Your task to perform on an android device: Search for Italian restaurants on Maps Image 0: 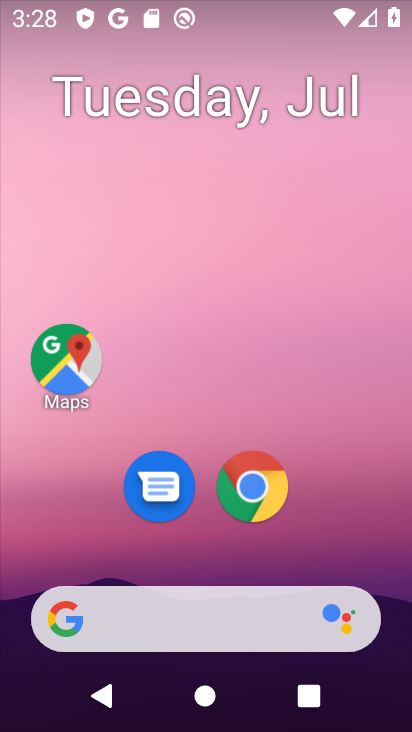
Step 0: click (68, 363)
Your task to perform on an android device: Search for Italian restaurants on Maps Image 1: 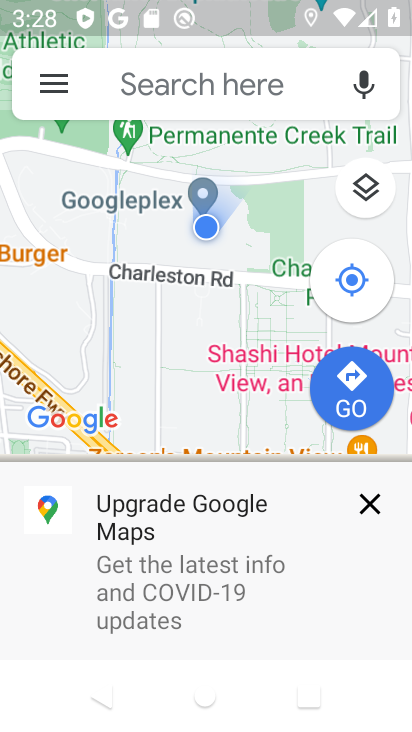
Step 1: click (212, 83)
Your task to perform on an android device: Search for Italian restaurants on Maps Image 2: 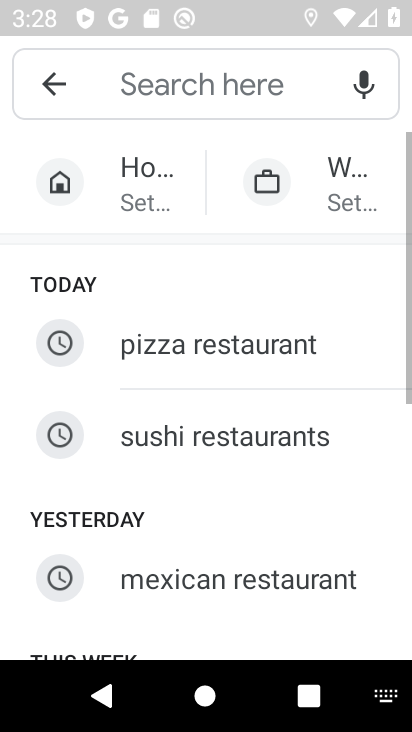
Step 2: drag from (169, 562) to (248, 148)
Your task to perform on an android device: Search for Italian restaurants on Maps Image 3: 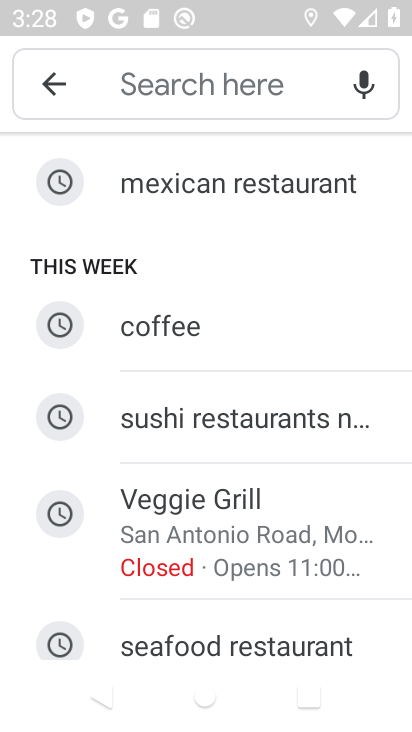
Step 3: drag from (175, 566) to (258, 115)
Your task to perform on an android device: Search for Italian restaurants on Maps Image 4: 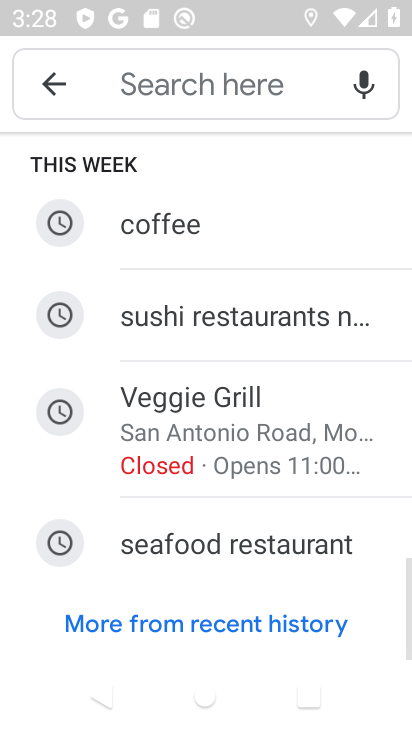
Step 4: drag from (239, 168) to (154, 712)
Your task to perform on an android device: Search for Italian restaurants on Maps Image 5: 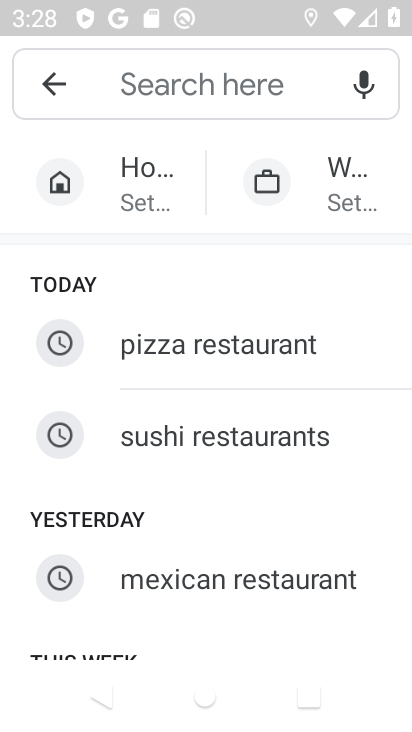
Step 5: click (176, 80)
Your task to perform on an android device: Search for Italian restaurants on Maps Image 6: 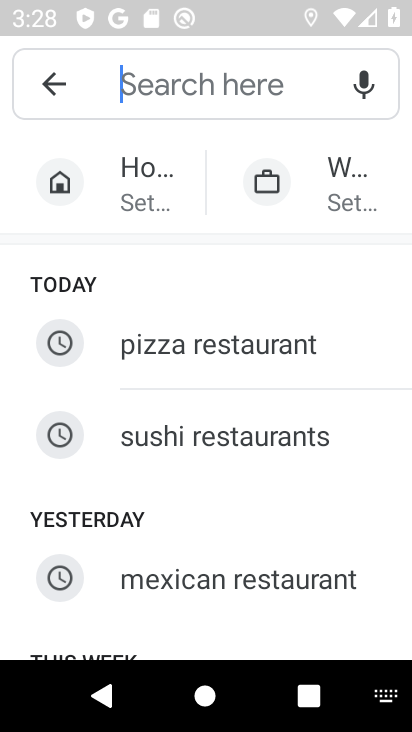
Step 6: type "italian restaurants"
Your task to perform on an android device: Search for Italian restaurants on Maps Image 7: 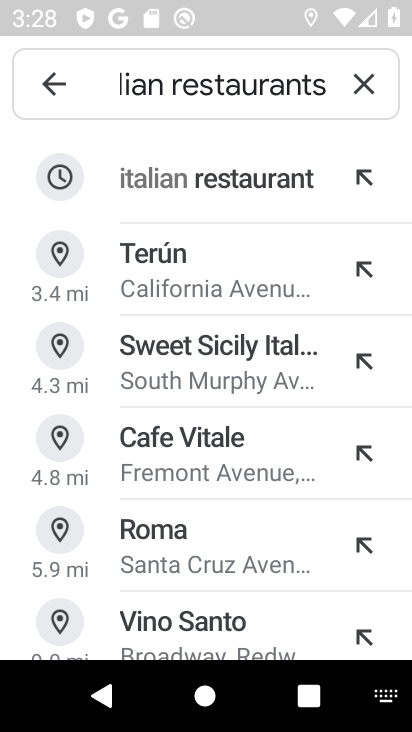
Step 7: click (225, 187)
Your task to perform on an android device: Search for Italian restaurants on Maps Image 8: 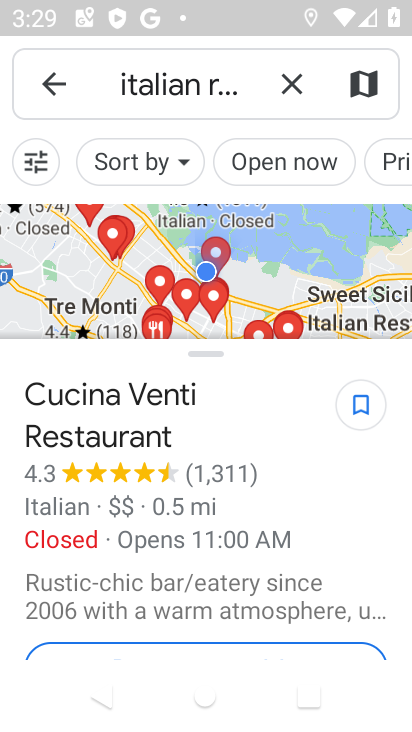
Step 8: task complete